Your task to perform on an android device: Do I have any events this weekend? Image 0: 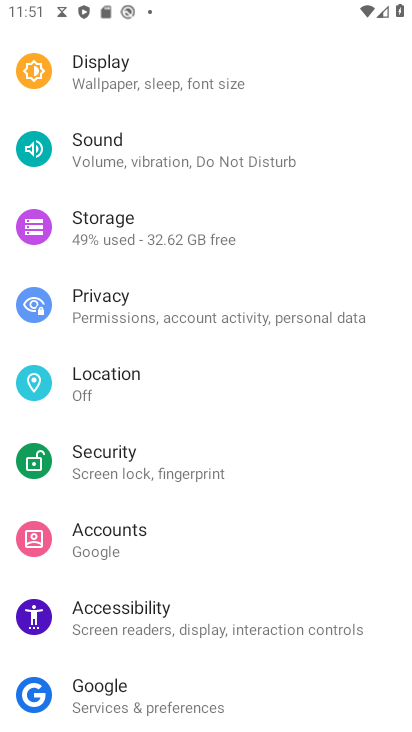
Step 0: press home button
Your task to perform on an android device: Do I have any events this weekend? Image 1: 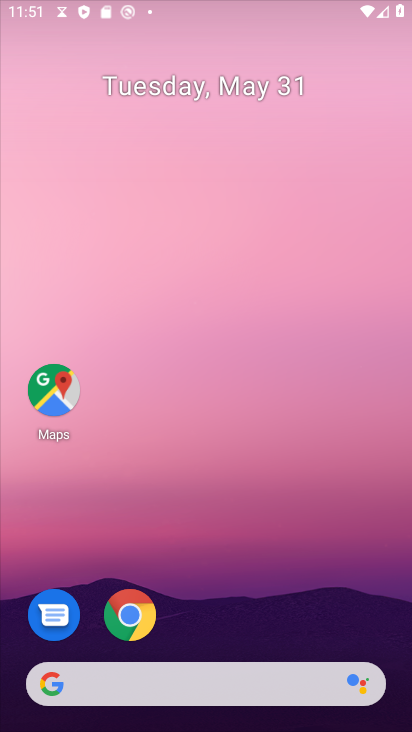
Step 1: drag from (273, 676) to (283, 109)
Your task to perform on an android device: Do I have any events this weekend? Image 2: 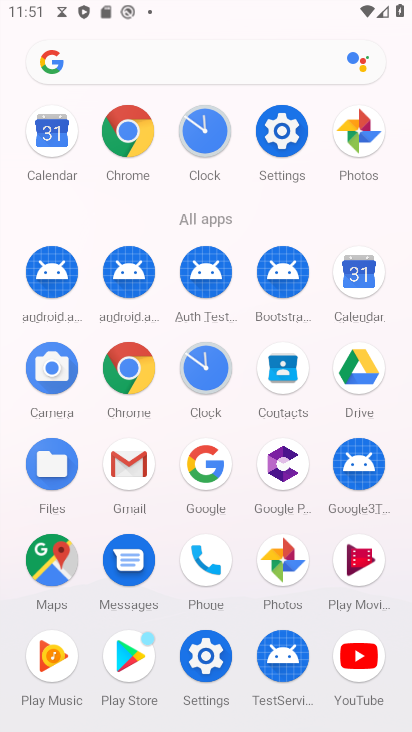
Step 2: click (376, 283)
Your task to perform on an android device: Do I have any events this weekend? Image 3: 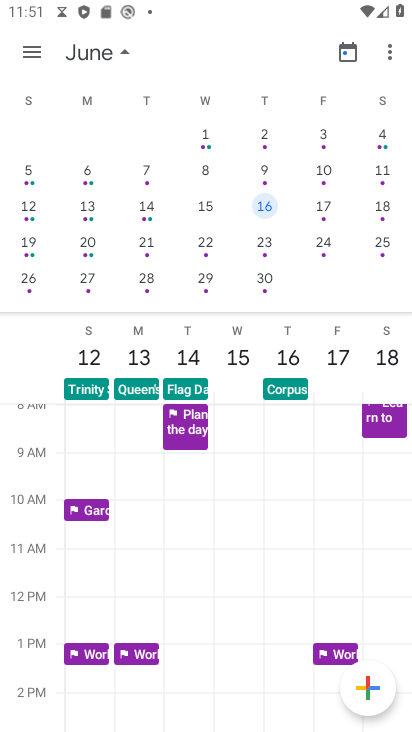
Step 3: click (343, 243)
Your task to perform on an android device: Do I have any events this weekend? Image 4: 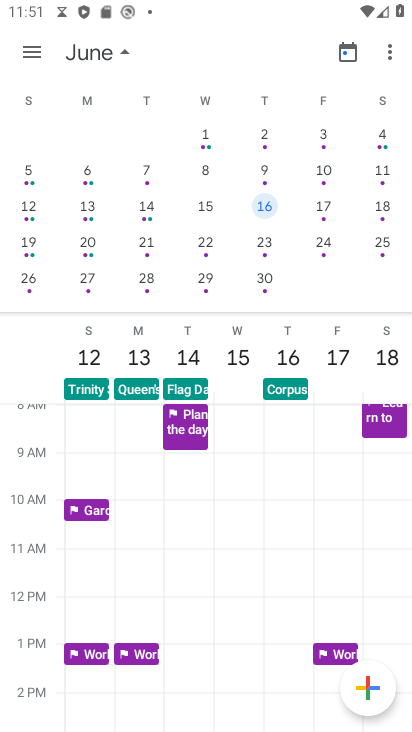
Step 4: click (387, 136)
Your task to perform on an android device: Do I have any events this weekend? Image 5: 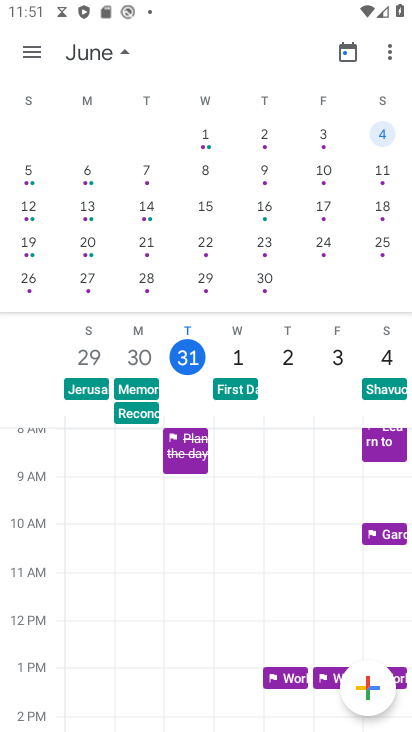
Step 5: click (391, 354)
Your task to perform on an android device: Do I have any events this weekend? Image 6: 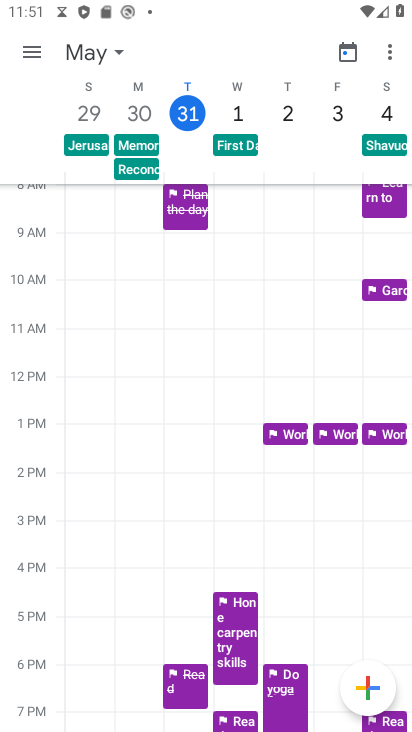
Step 6: task complete